Your task to perform on an android device: change the clock style Image 0: 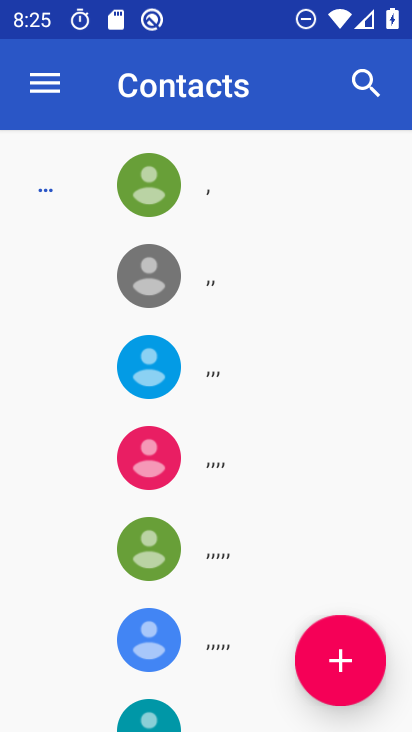
Step 0: press home button
Your task to perform on an android device: change the clock style Image 1: 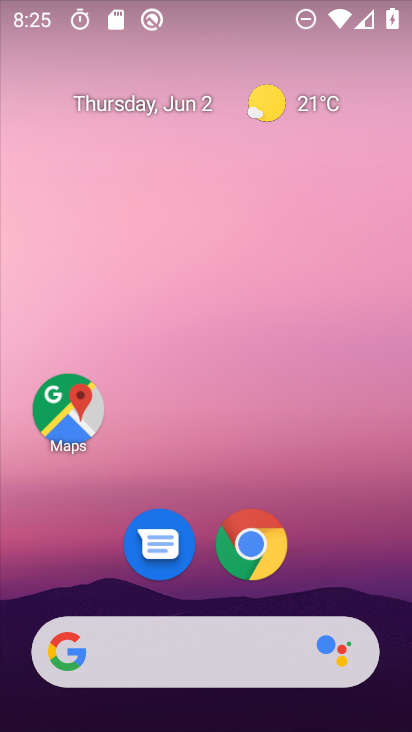
Step 1: drag from (372, 601) to (357, 255)
Your task to perform on an android device: change the clock style Image 2: 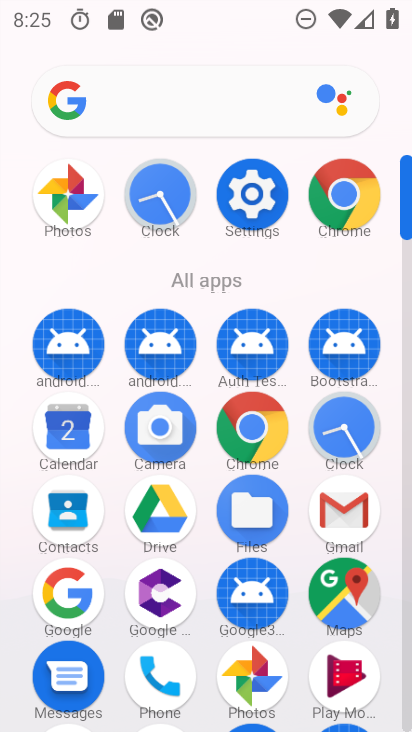
Step 2: click (160, 215)
Your task to perform on an android device: change the clock style Image 3: 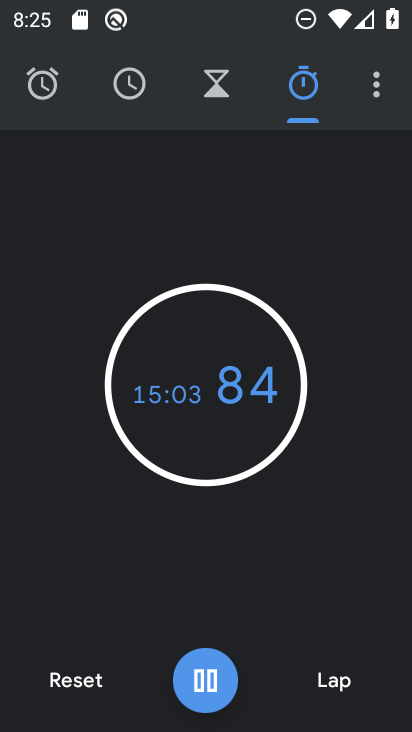
Step 3: click (378, 108)
Your task to perform on an android device: change the clock style Image 4: 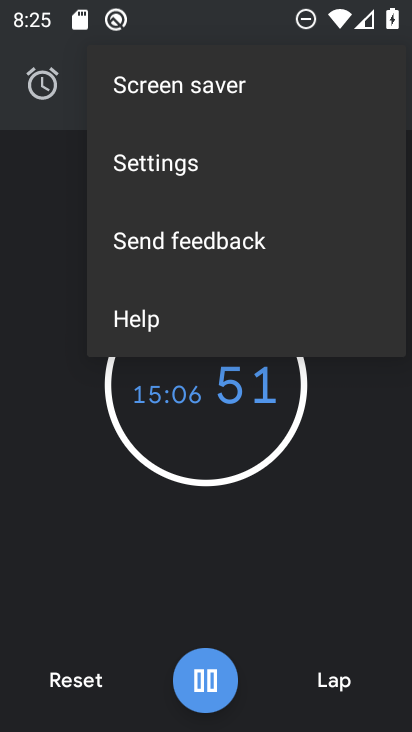
Step 4: click (236, 167)
Your task to perform on an android device: change the clock style Image 5: 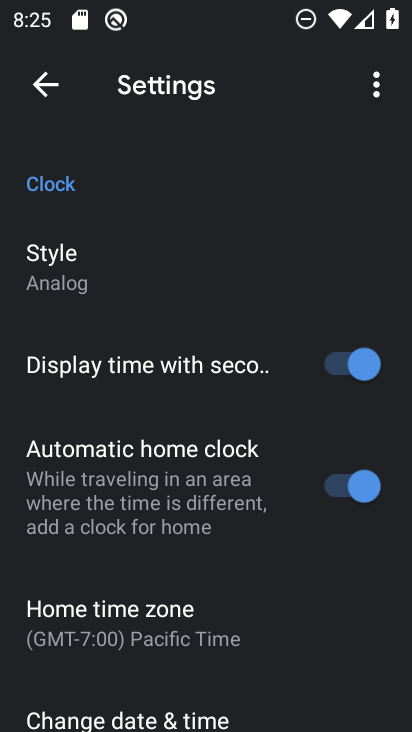
Step 5: click (129, 273)
Your task to perform on an android device: change the clock style Image 6: 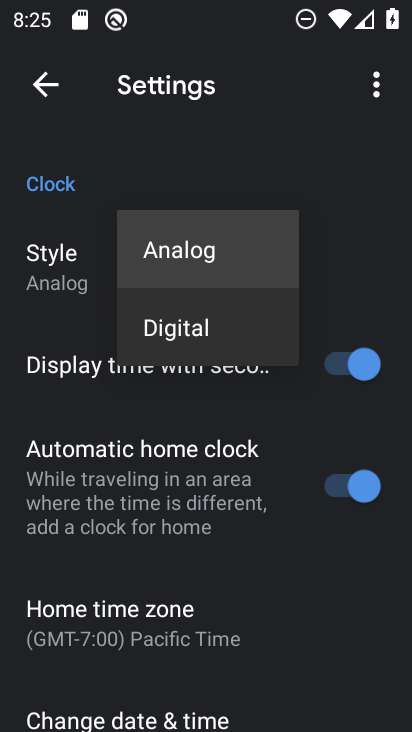
Step 6: click (167, 329)
Your task to perform on an android device: change the clock style Image 7: 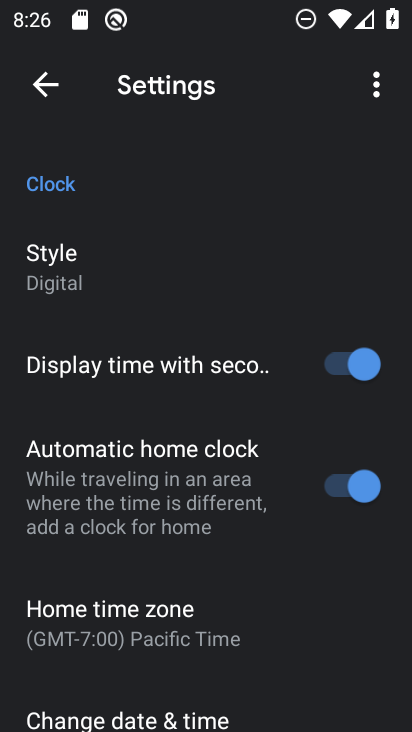
Step 7: task complete